Your task to perform on an android device: Go to Android settings Image 0: 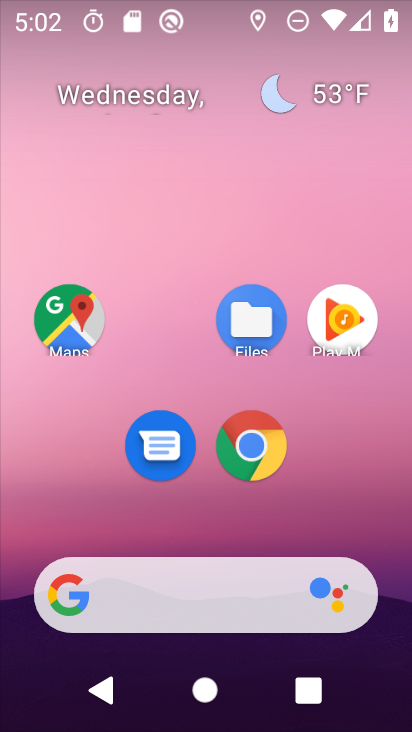
Step 0: drag from (318, 519) to (309, 133)
Your task to perform on an android device: Go to Android settings Image 1: 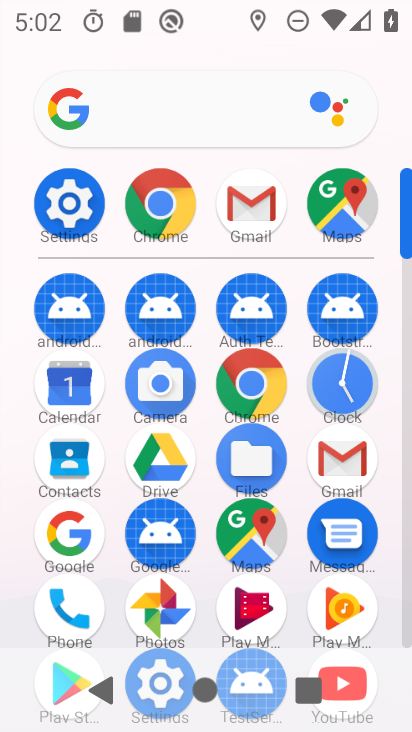
Step 1: click (88, 199)
Your task to perform on an android device: Go to Android settings Image 2: 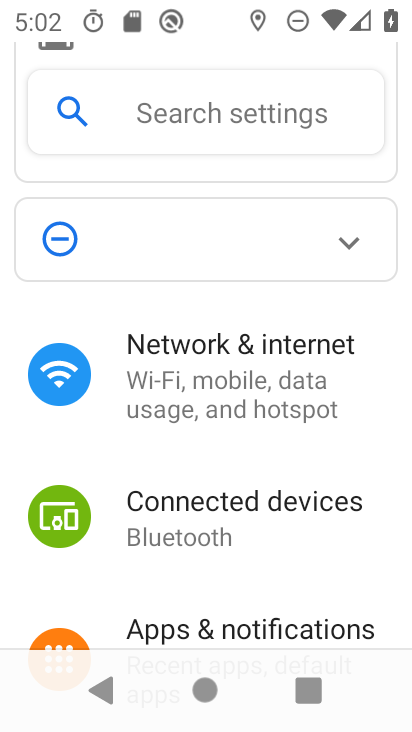
Step 2: task complete